Your task to perform on an android device: toggle improve location accuracy Image 0: 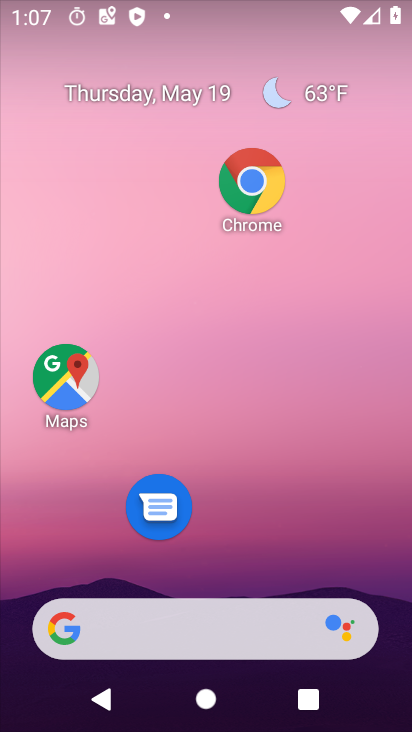
Step 0: drag from (261, 543) to (234, 4)
Your task to perform on an android device: toggle improve location accuracy Image 1: 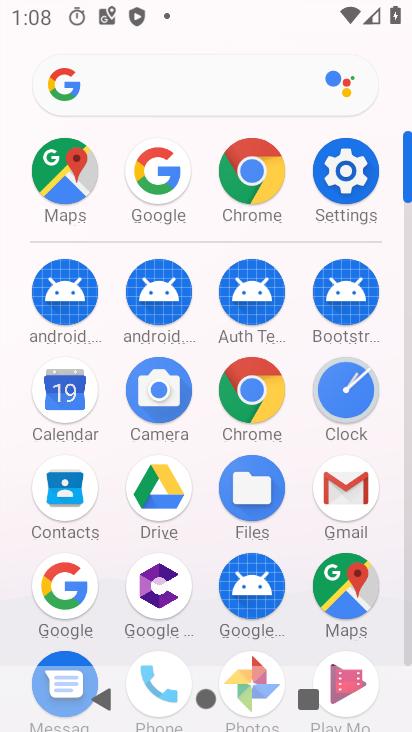
Step 1: click (346, 178)
Your task to perform on an android device: toggle improve location accuracy Image 2: 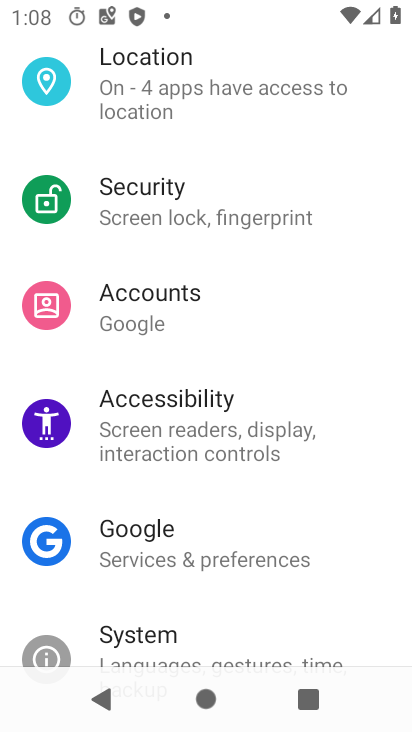
Step 2: click (177, 102)
Your task to perform on an android device: toggle improve location accuracy Image 3: 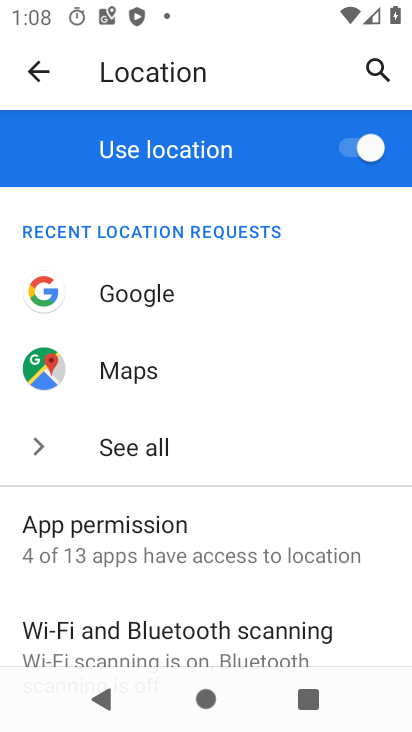
Step 3: drag from (122, 383) to (123, 321)
Your task to perform on an android device: toggle improve location accuracy Image 4: 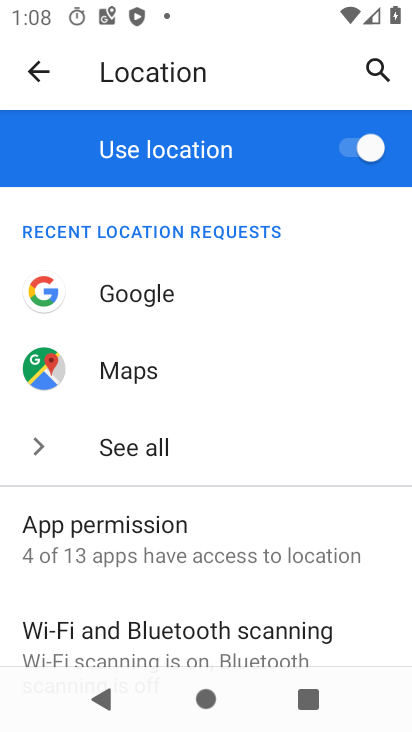
Step 4: drag from (119, 602) to (128, 345)
Your task to perform on an android device: toggle improve location accuracy Image 5: 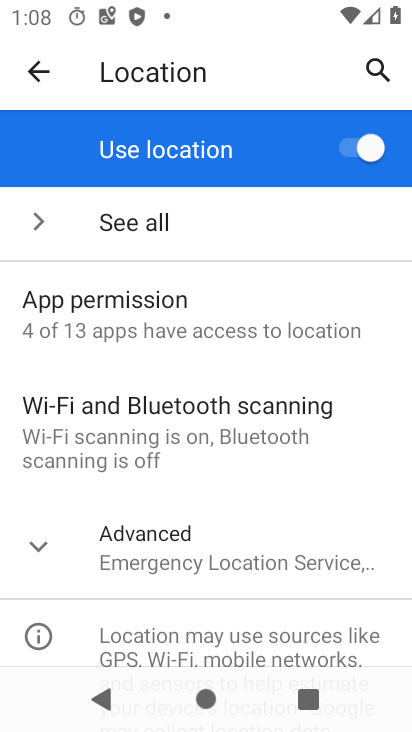
Step 5: click (113, 564)
Your task to perform on an android device: toggle improve location accuracy Image 6: 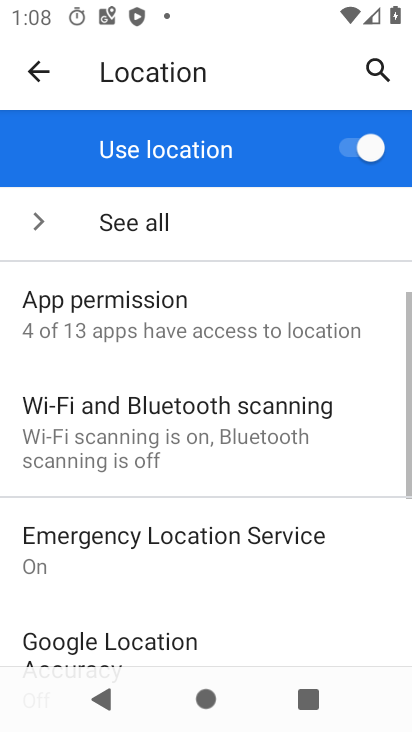
Step 6: drag from (126, 590) to (170, 321)
Your task to perform on an android device: toggle improve location accuracy Image 7: 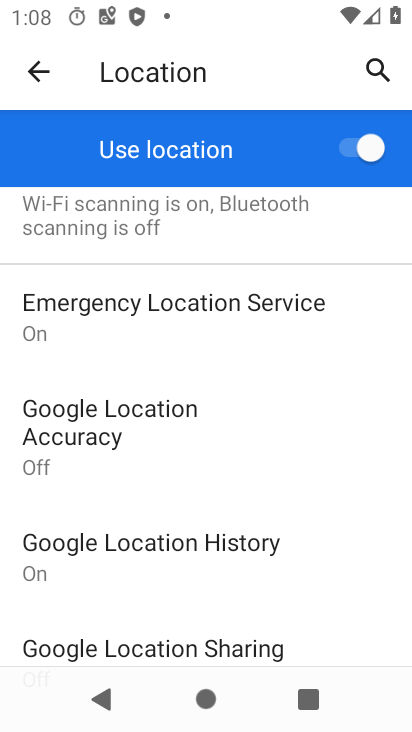
Step 7: click (101, 578)
Your task to perform on an android device: toggle improve location accuracy Image 8: 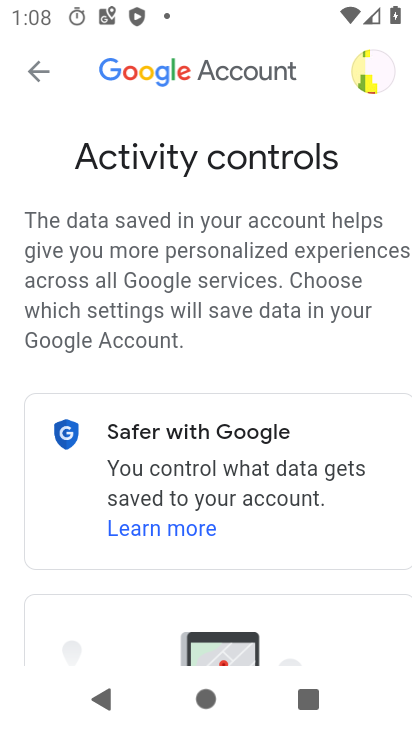
Step 8: click (33, 62)
Your task to perform on an android device: toggle improve location accuracy Image 9: 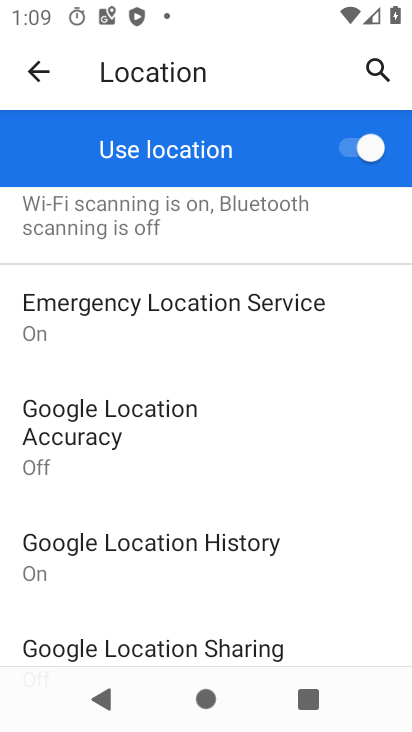
Step 9: click (87, 425)
Your task to perform on an android device: toggle improve location accuracy Image 10: 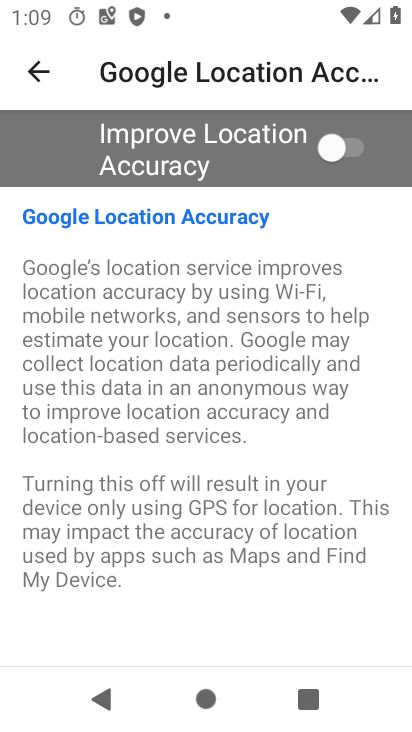
Step 10: click (340, 145)
Your task to perform on an android device: toggle improve location accuracy Image 11: 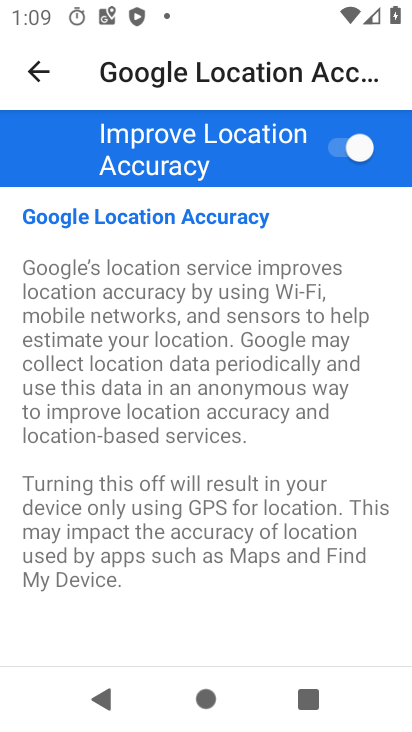
Step 11: task complete